Your task to perform on an android device: delete a single message in the gmail app Image 0: 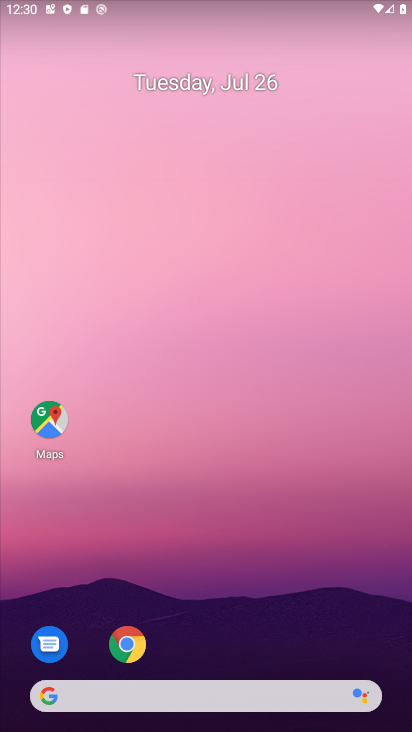
Step 0: drag from (249, 632) to (251, 207)
Your task to perform on an android device: delete a single message in the gmail app Image 1: 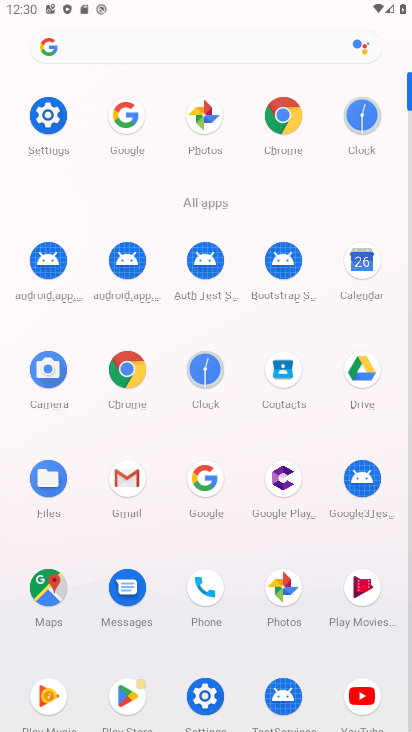
Step 1: click (124, 471)
Your task to perform on an android device: delete a single message in the gmail app Image 2: 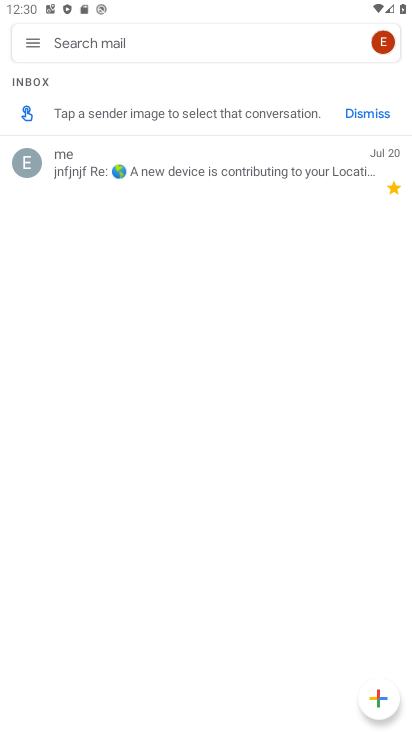
Step 2: click (32, 33)
Your task to perform on an android device: delete a single message in the gmail app Image 3: 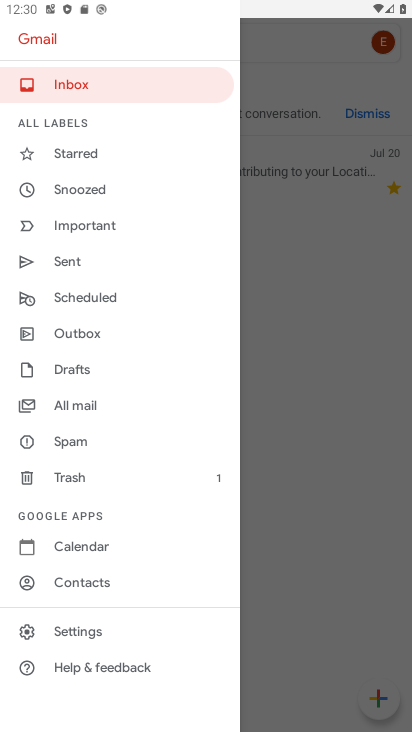
Step 3: click (109, 399)
Your task to perform on an android device: delete a single message in the gmail app Image 4: 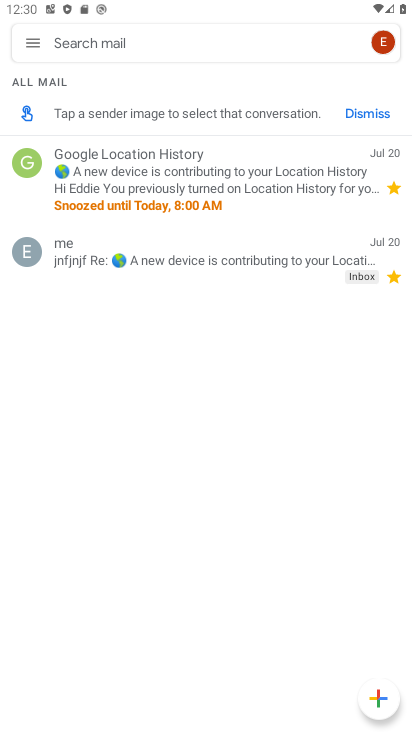
Step 4: click (28, 39)
Your task to perform on an android device: delete a single message in the gmail app Image 5: 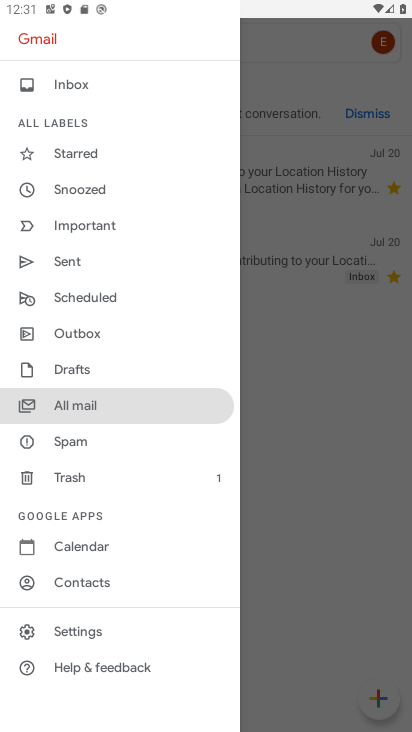
Step 5: click (137, 401)
Your task to perform on an android device: delete a single message in the gmail app Image 6: 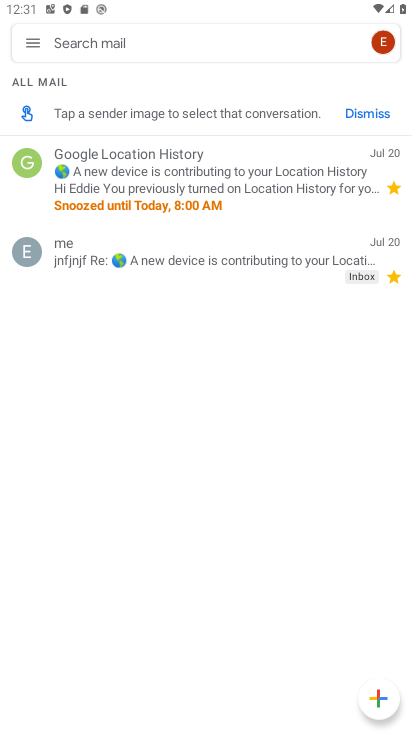
Step 6: click (224, 162)
Your task to perform on an android device: delete a single message in the gmail app Image 7: 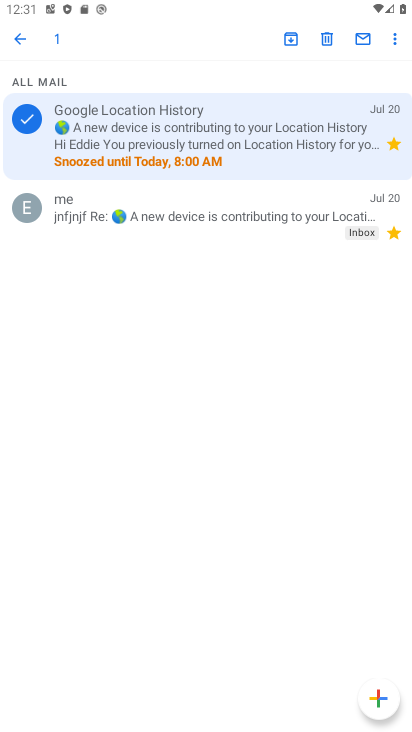
Step 7: click (327, 31)
Your task to perform on an android device: delete a single message in the gmail app Image 8: 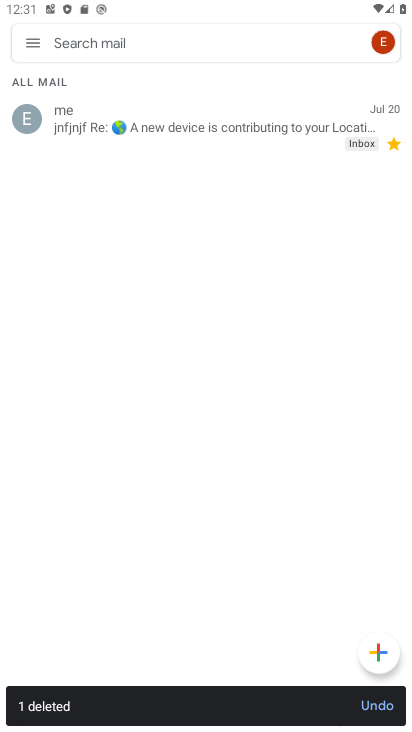
Step 8: task complete